Your task to perform on an android device: open app "Facebook" Image 0: 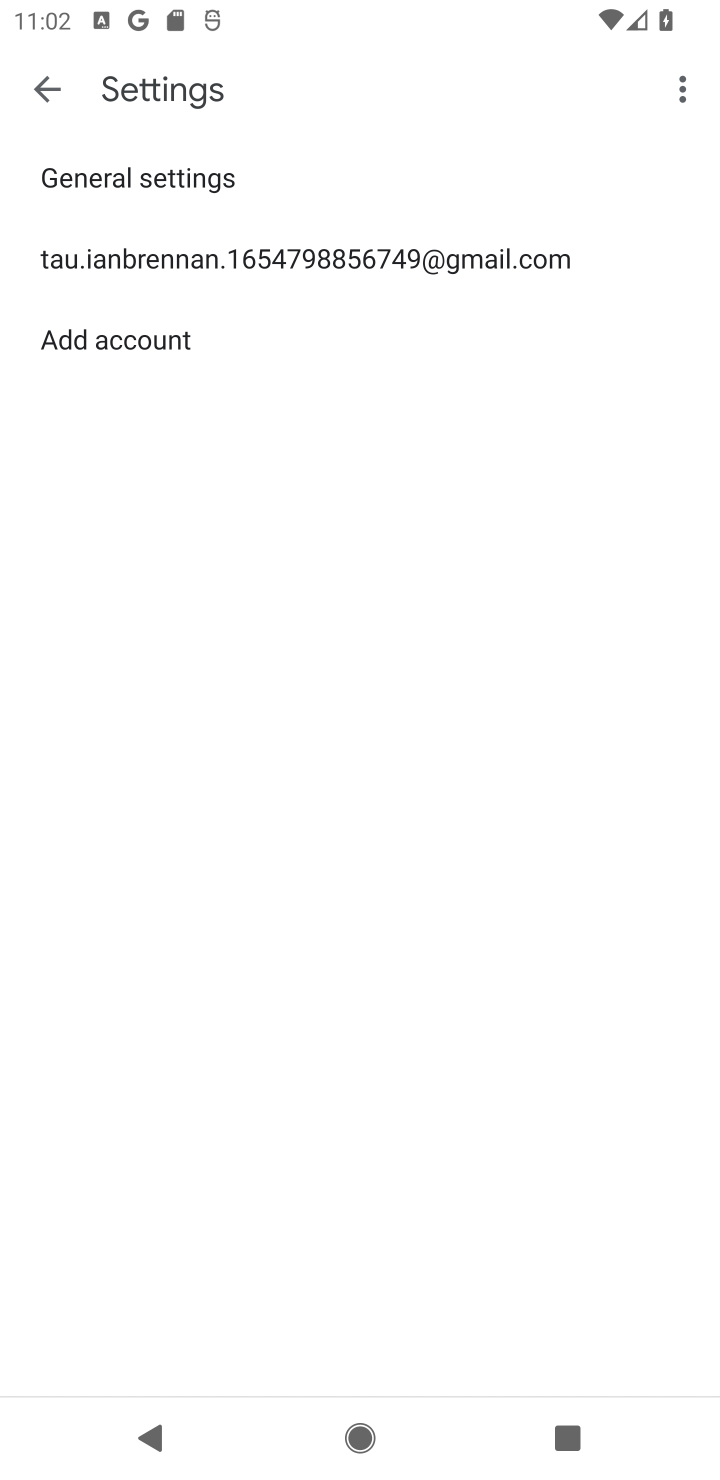
Step 0: press back button
Your task to perform on an android device: open app "Facebook" Image 1: 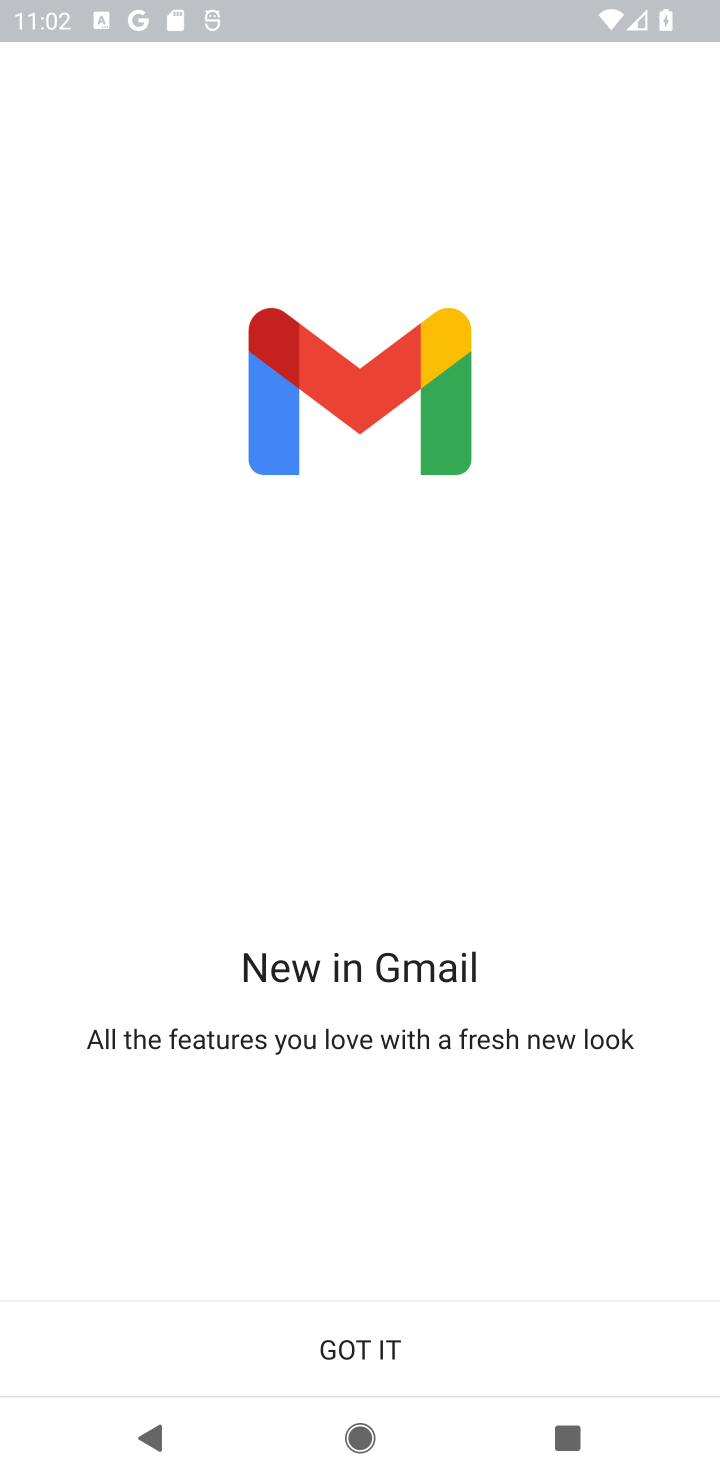
Step 1: press back button
Your task to perform on an android device: open app "Facebook" Image 2: 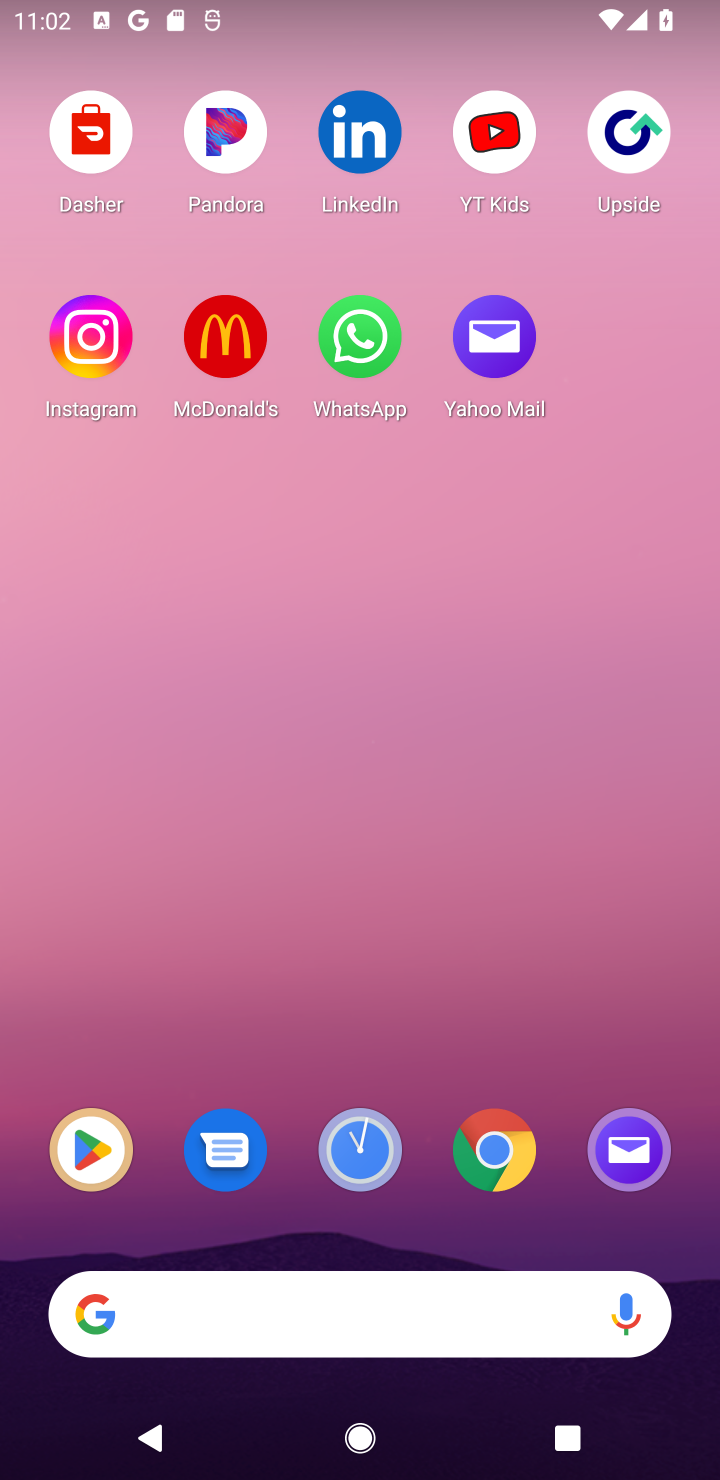
Step 2: drag from (156, 799) to (322, 54)
Your task to perform on an android device: open app "Facebook" Image 3: 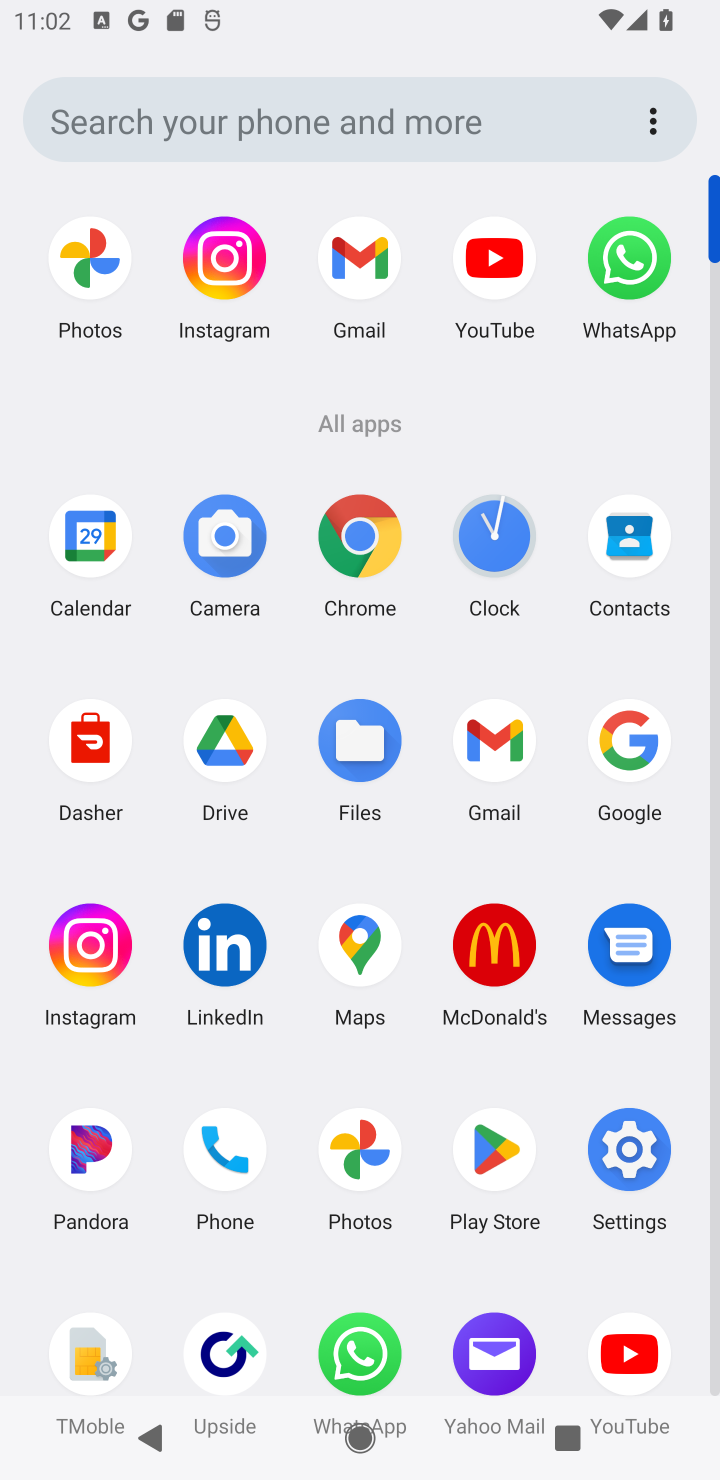
Step 3: click (521, 1140)
Your task to perform on an android device: open app "Facebook" Image 4: 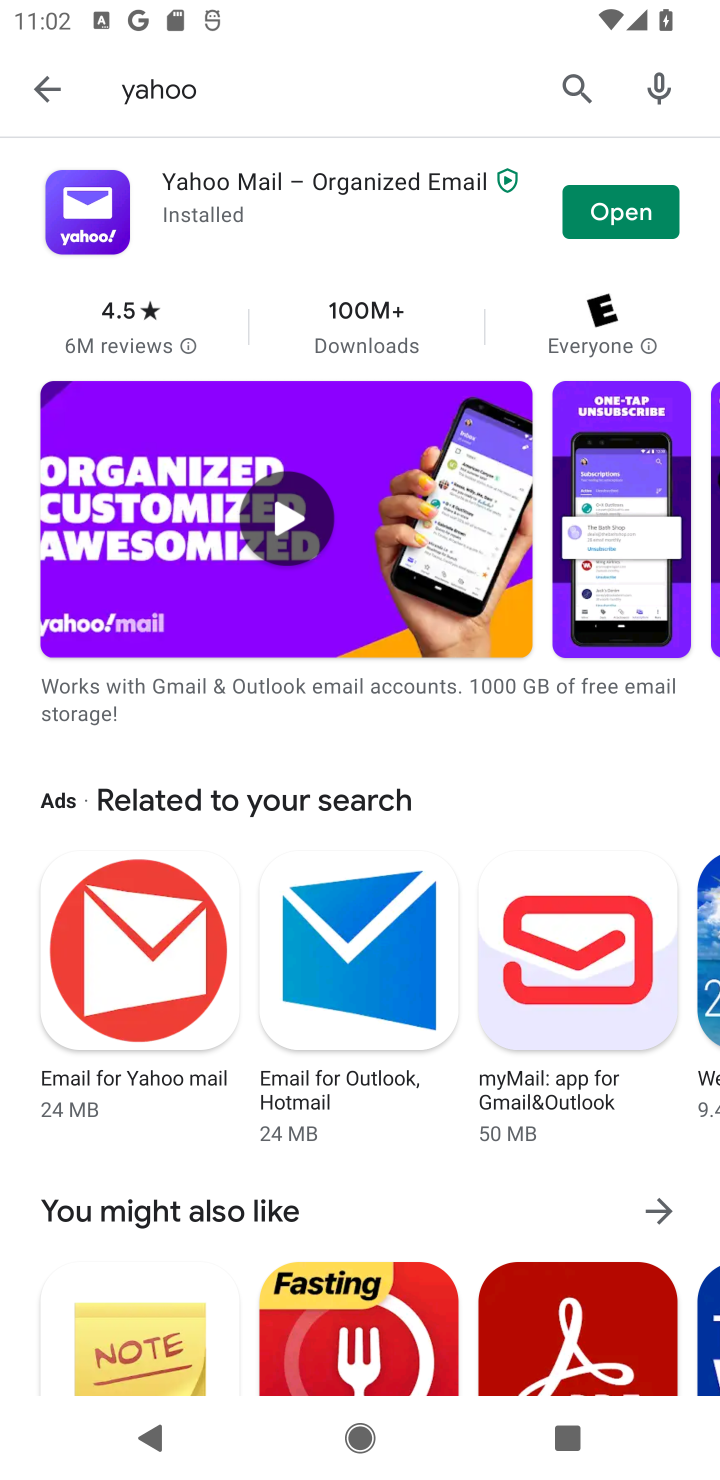
Step 4: click (581, 83)
Your task to perform on an android device: open app "Facebook" Image 5: 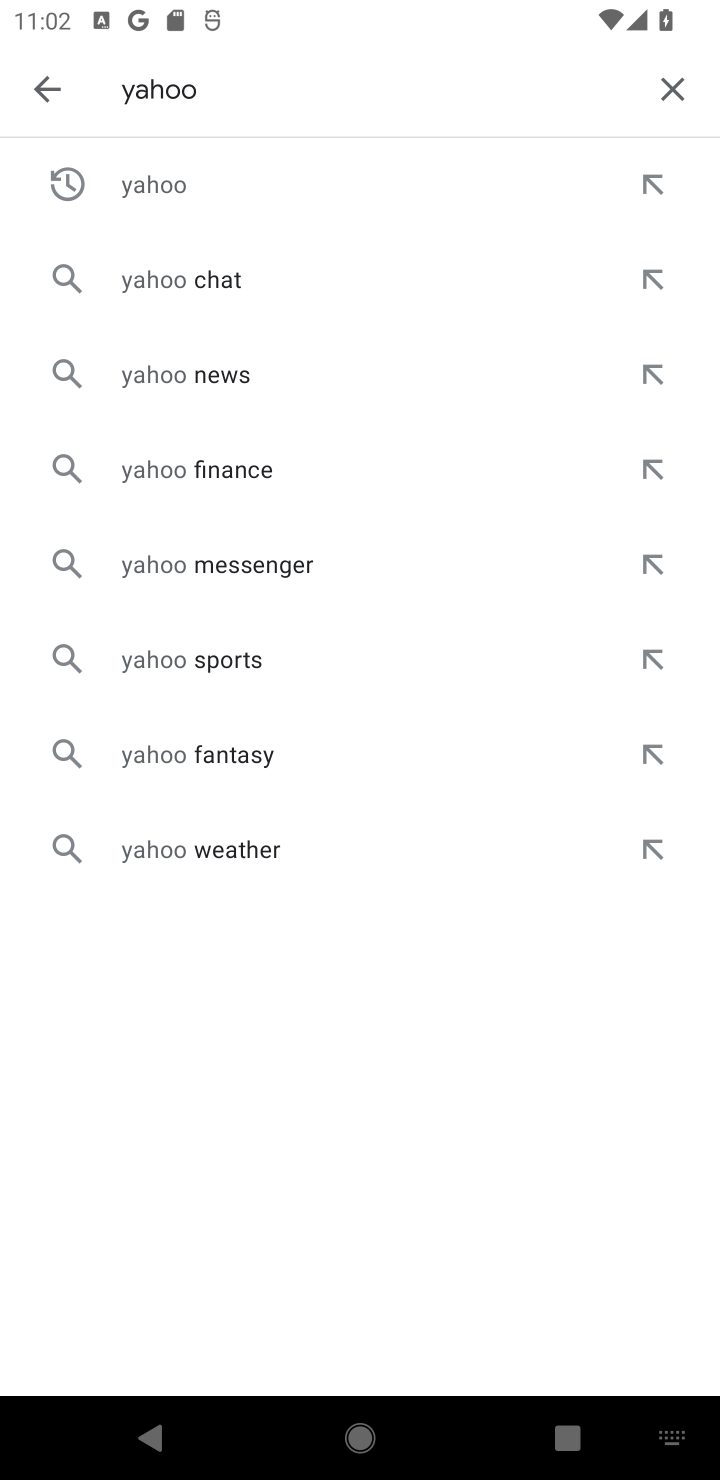
Step 5: click (673, 95)
Your task to perform on an android device: open app "Facebook" Image 6: 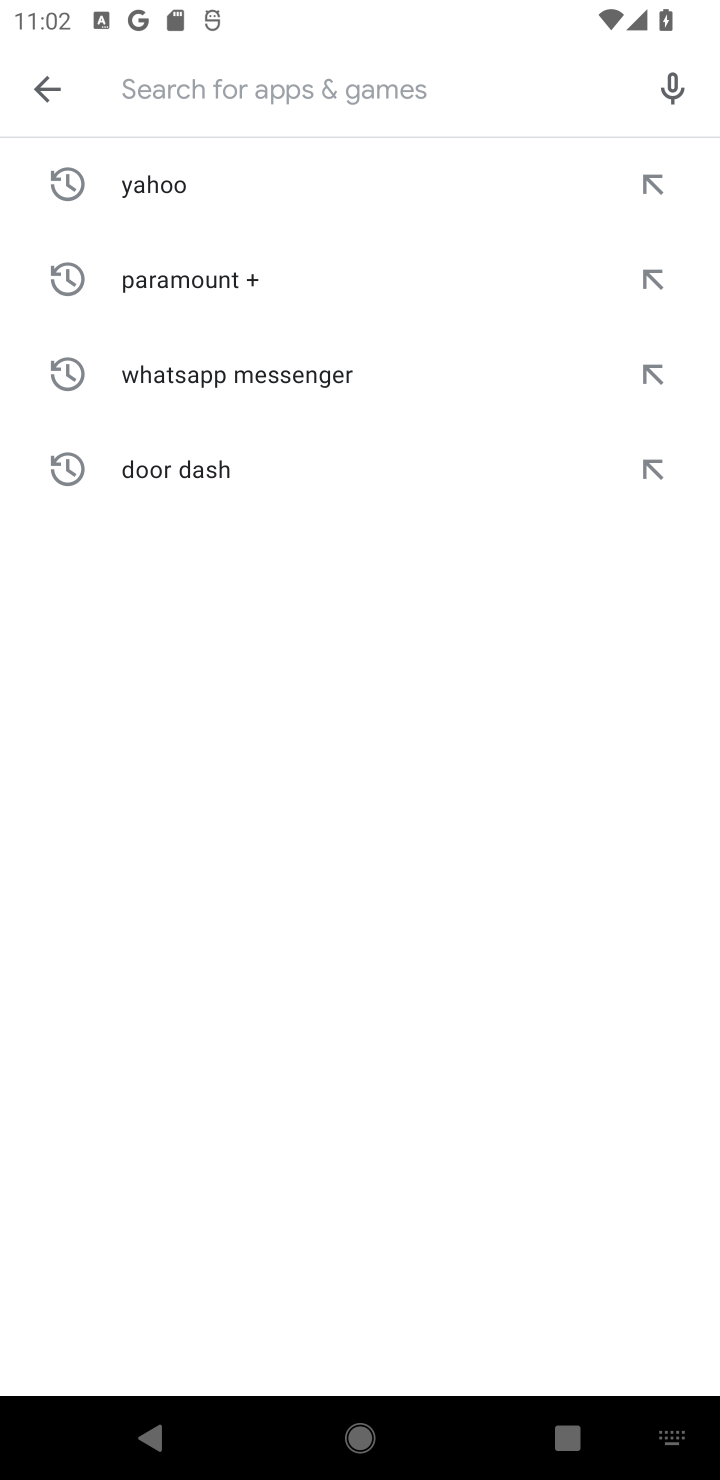
Step 6: click (276, 94)
Your task to perform on an android device: open app "Facebook" Image 7: 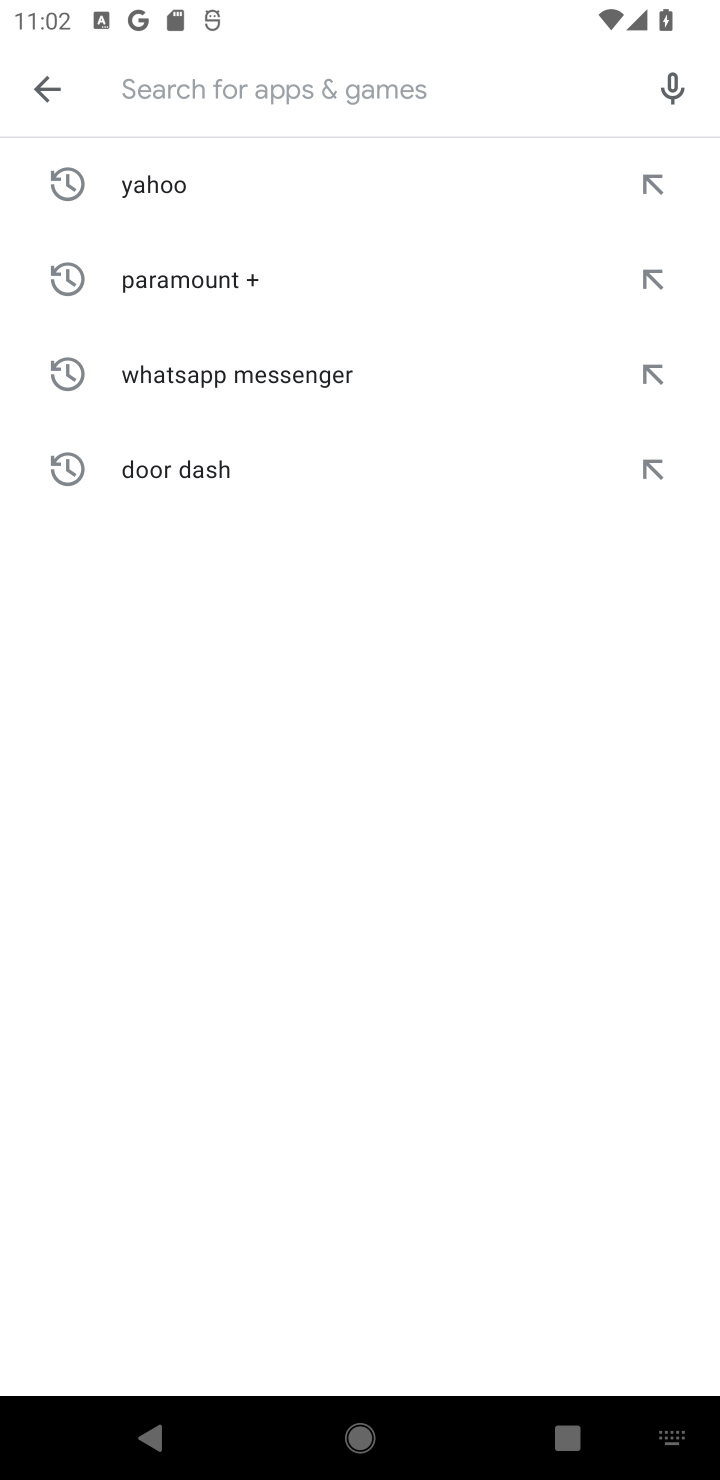
Step 7: type "facebook"
Your task to perform on an android device: open app "Facebook" Image 8: 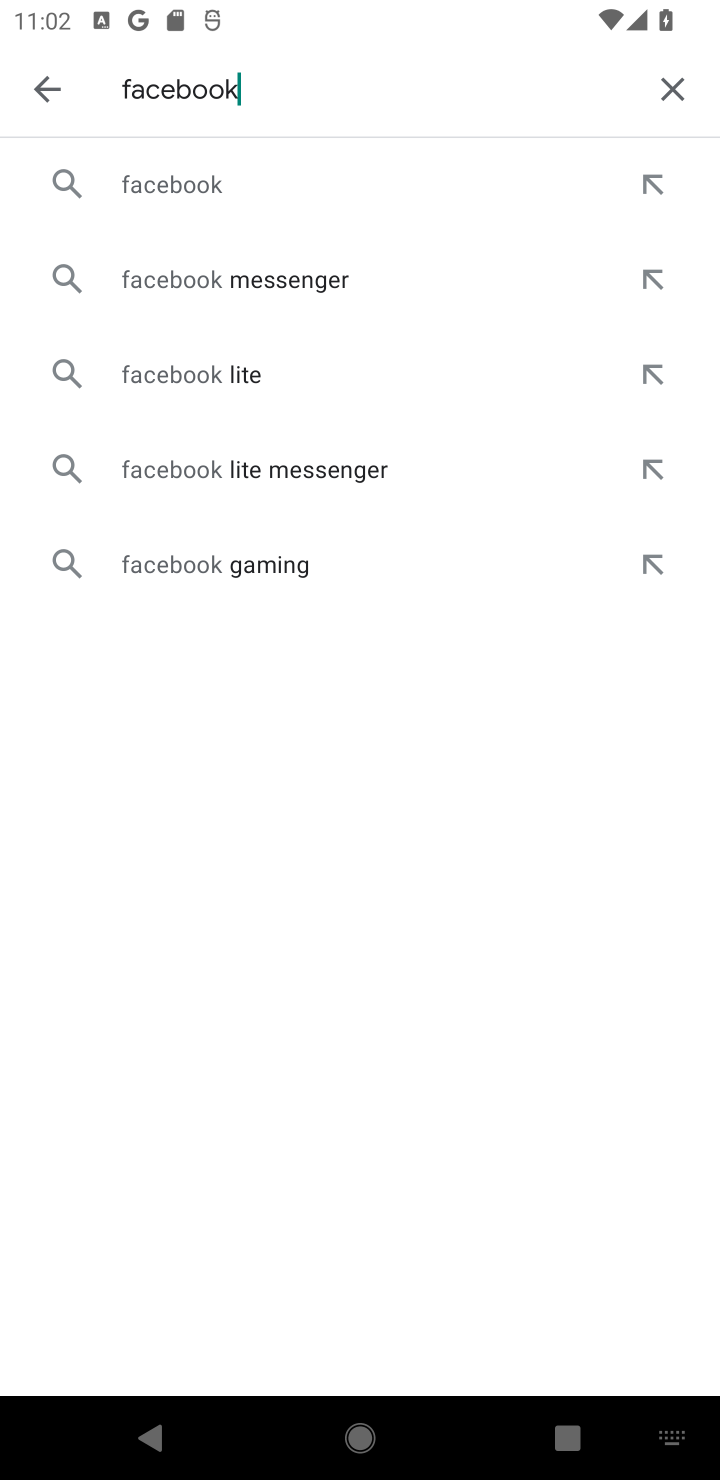
Step 8: click (131, 161)
Your task to perform on an android device: open app "Facebook" Image 9: 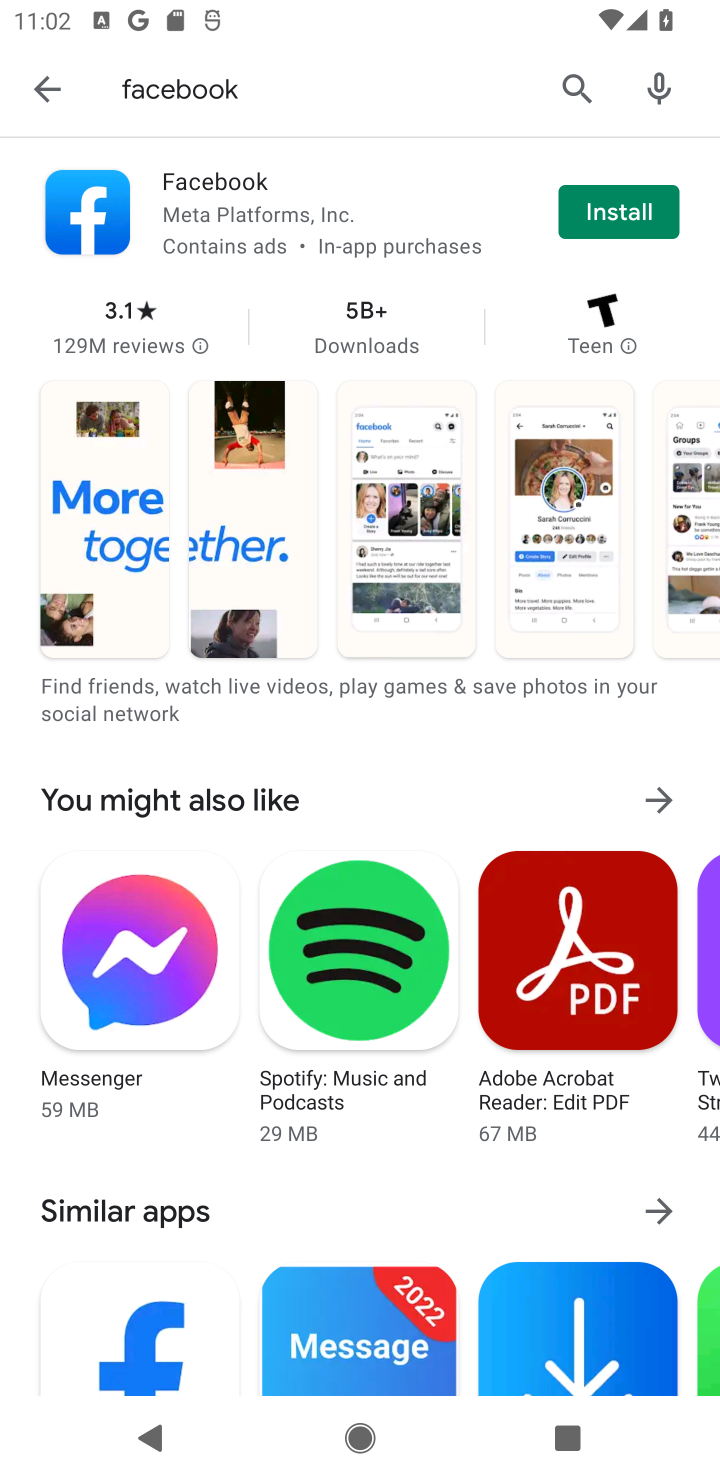
Step 9: task complete